Your task to perform on an android device: Open Chrome and go to settings Image 0: 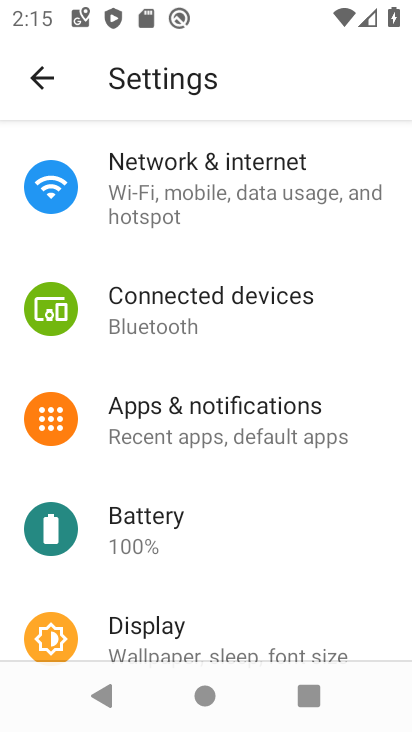
Step 0: press home button
Your task to perform on an android device: Open Chrome and go to settings Image 1: 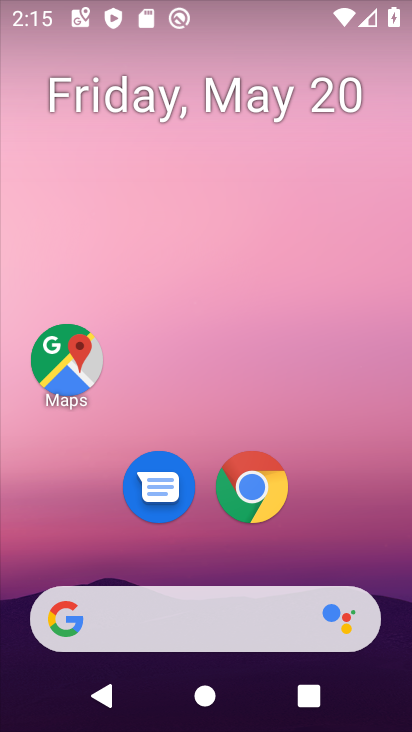
Step 1: drag from (321, 524) to (408, 68)
Your task to perform on an android device: Open Chrome and go to settings Image 2: 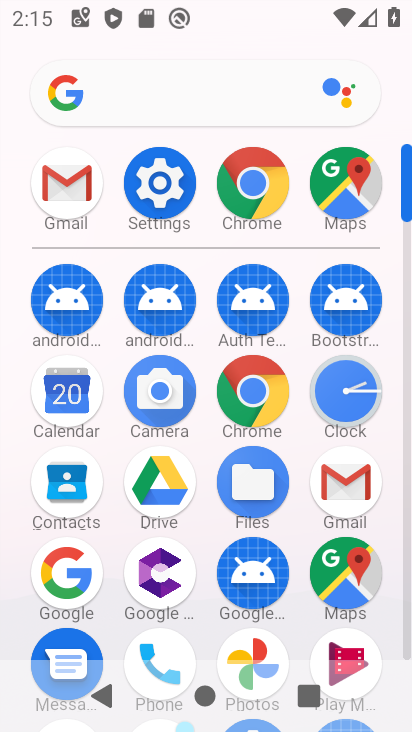
Step 2: click (257, 183)
Your task to perform on an android device: Open Chrome and go to settings Image 3: 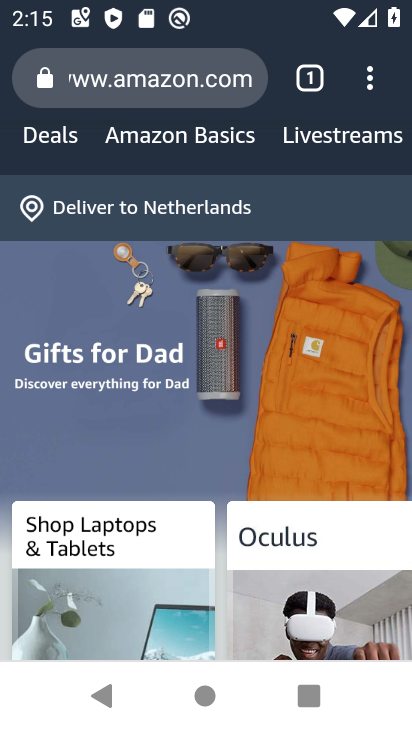
Step 3: task complete